Your task to perform on an android device: Search for the best rated vacuums on Target Image 0: 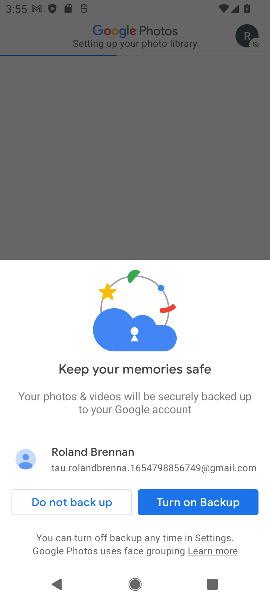
Step 0: press home button
Your task to perform on an android device: Search for the best rated vacuums on Target Image 1: 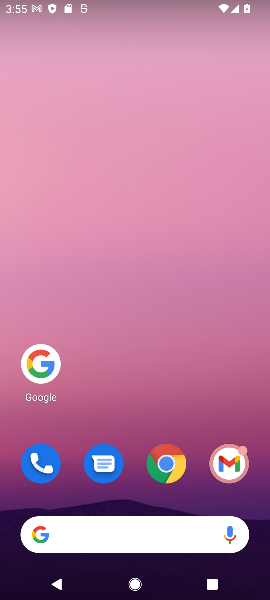
Step 1: click (38, 357)
Your task to perform on an android device: Search for the best rated vacuums on Target Image 2: 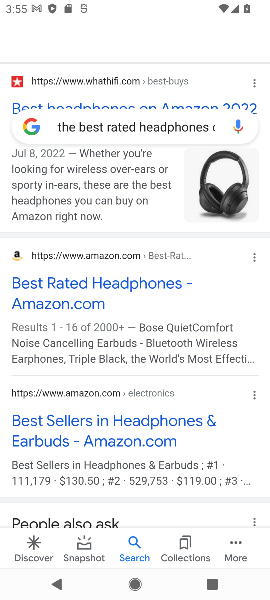
Step 2: click (163, 124)
Your task to perform on an android device: Search for the best rated vacuums on Target Image 3: 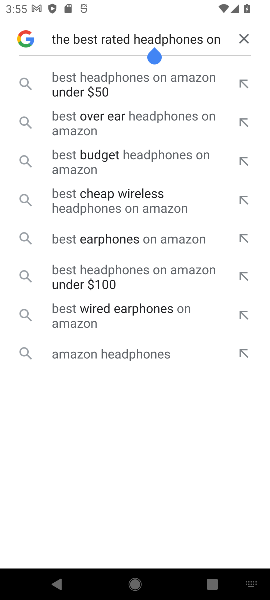
Step 3: click (245, 42)
Your task to perform on an android device: Search for the best rated vacuums on Target Image 4: 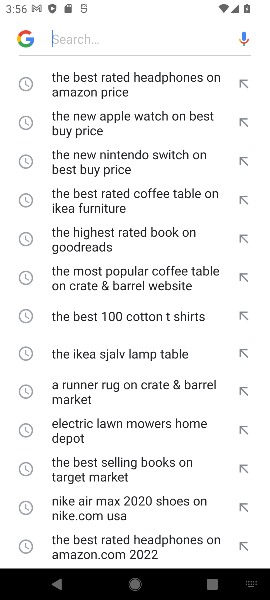
Step 4: click (76, 35)
Your task to perform on an android device: Search for the best rated vacuums on Target Image 5: 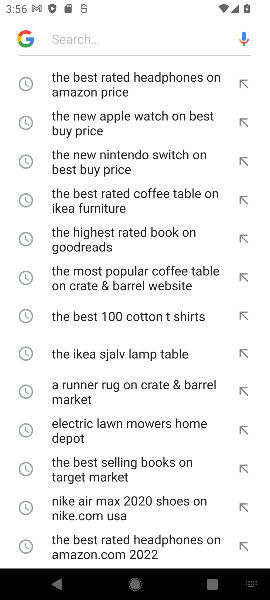
Step 5: type " the best rated vacuums on Target "
Your task to perform on an android device: Search for the best rated vacuums on Target Image 6: 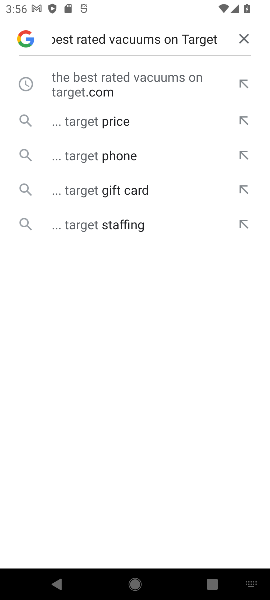
Step 6: click (97, 82)
Your task to perform on an android device: Search for the best rated vacuums on Target Image 7: 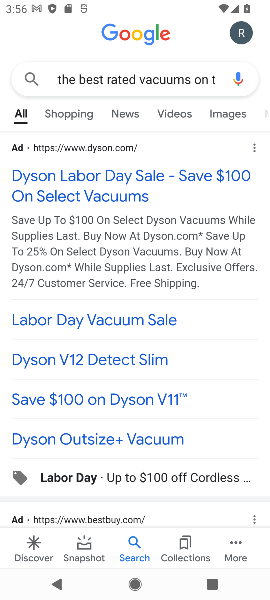
Step 7: drag from (128, 438) to (157, 223)
Your task to perform on an android device: Search for the best rated vacuums on Target Image 8: 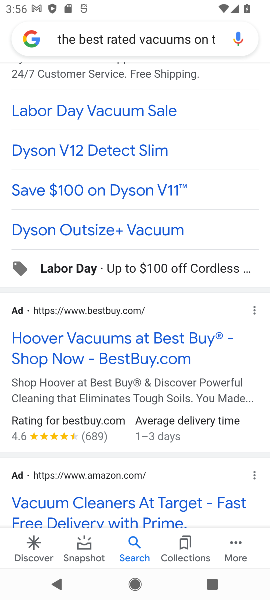
Step 8: click (100, 352)
Your task to perform on an android device: Search for the best rated vacuums on Target Image 9: 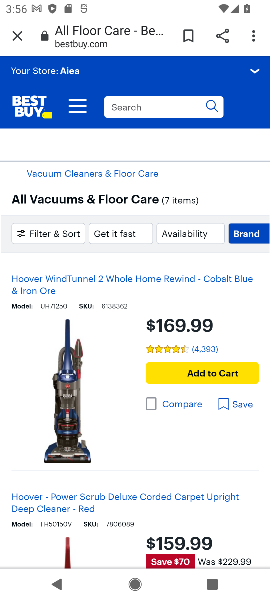
Step 9: task complete